Your task to perform on an android device: Search for pizza restaurants on Maps Image 0: 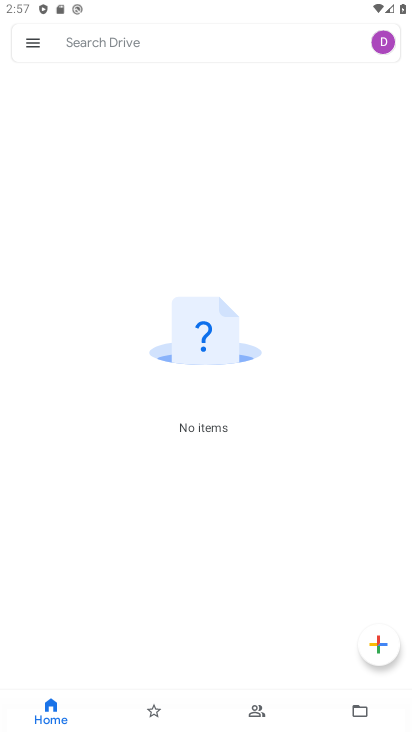
Step 0: press home button
Your task to perform on an android device: Search for pizza restaurants on Maps Image 1: 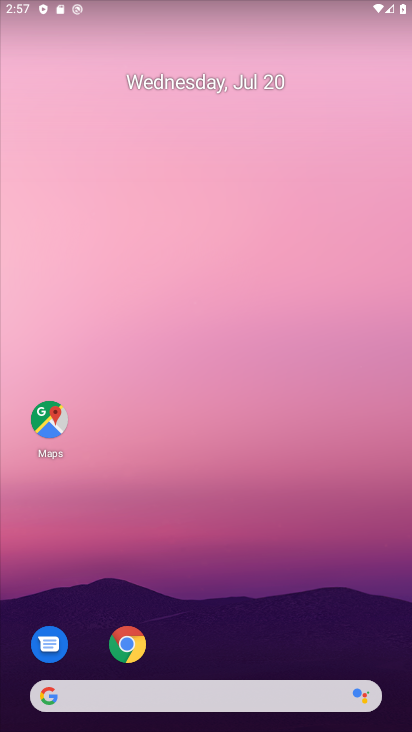
Step 1: drag from (231, 671) to (285, 141)
Your task to perform on an android device: Search for pizza restaurants on Maps Image 2: 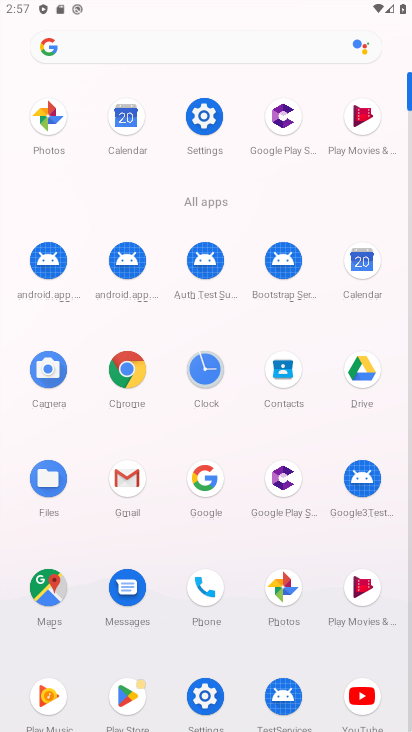
Step 2: click (47, 590)
Your task to perform on an android device: Search for pizza restaurants on Maps Image 3: 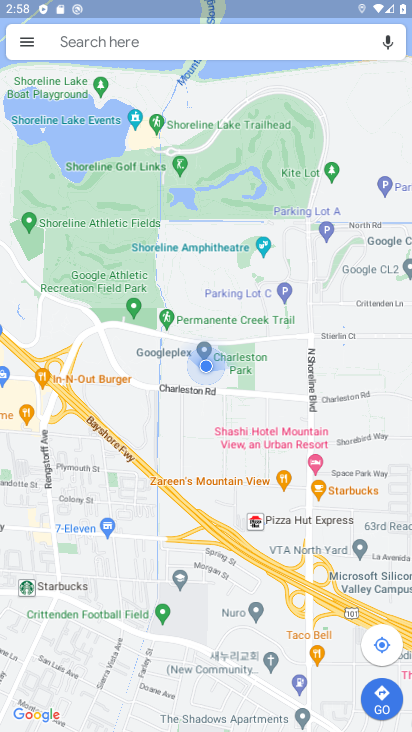
Step 3: click (104, 34)
Your task to perform on an android device: Search for pizza restaurants on Maps Image 4: 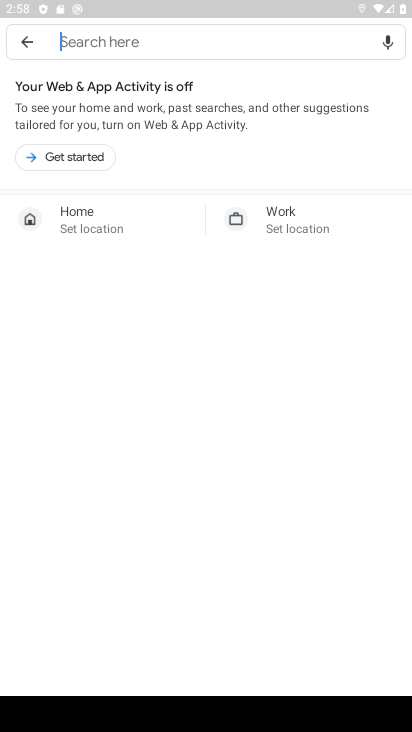
Step 4: type "pizza restaurants"
Your task to perform on an android device: Search for pizza restaurants on Maps Image 5: 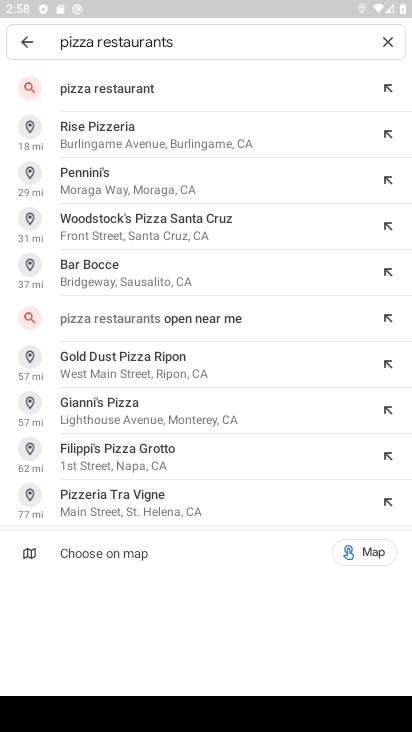
Step 5: click (158, 92)
Your task to perform on an android device: Search for pizza restaurants on Maps Image 6: 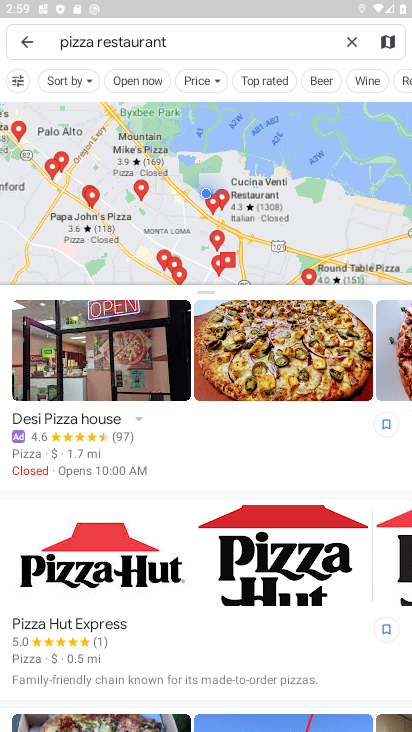
Step 6: task complete